Your task to perform on an android device: all mails in gmail Image 0: 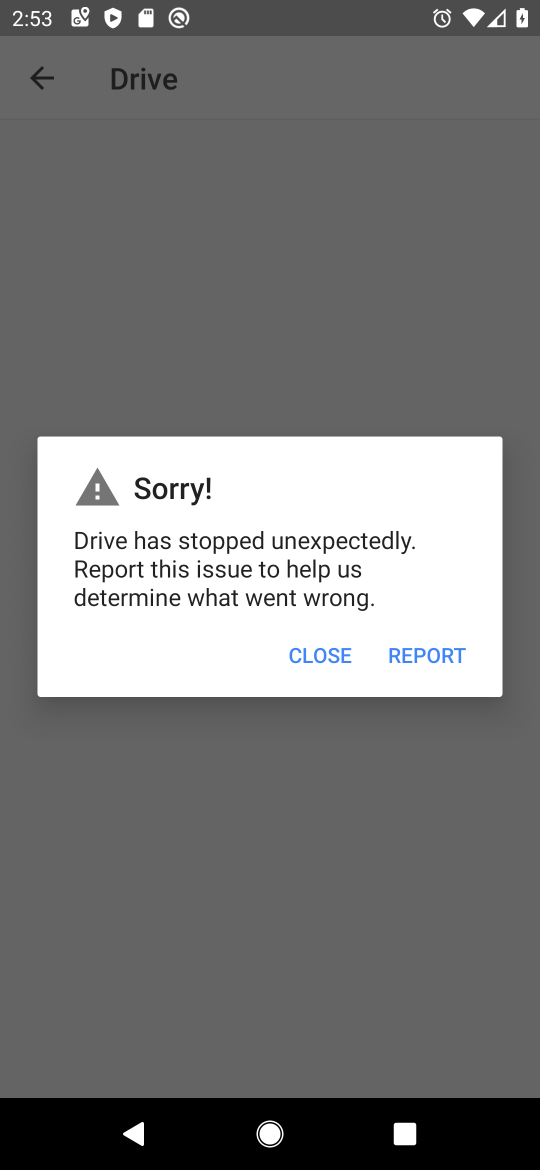
Step 0: press home button
Your task to perform on an android device: all mails in gmail Image 1: 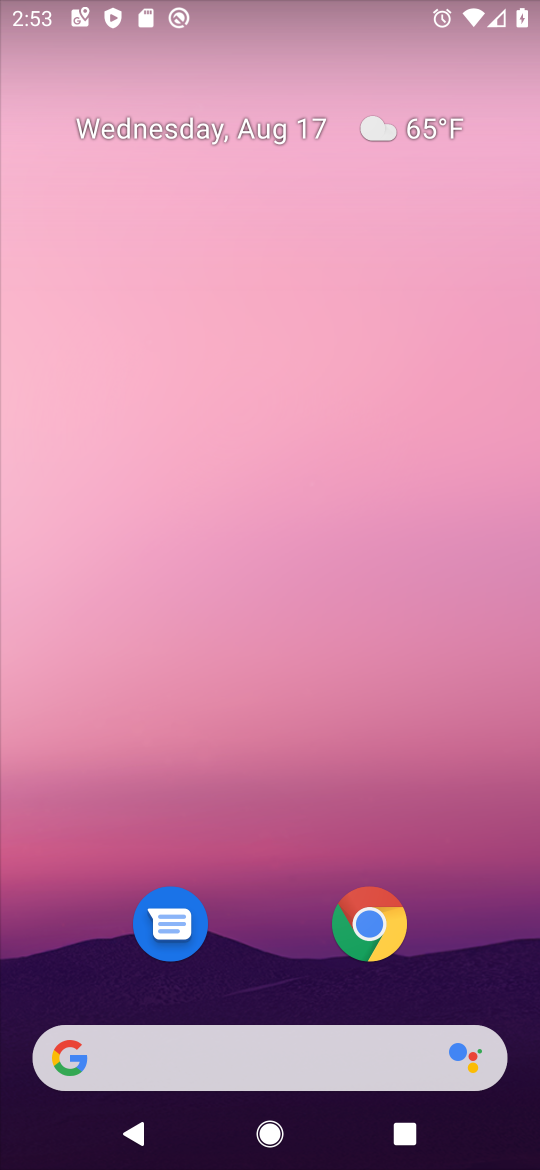
Step 1: drag from (258, 1053) to (174, 280)
Your task to perform on an android device: all mails in gmail Image 2: 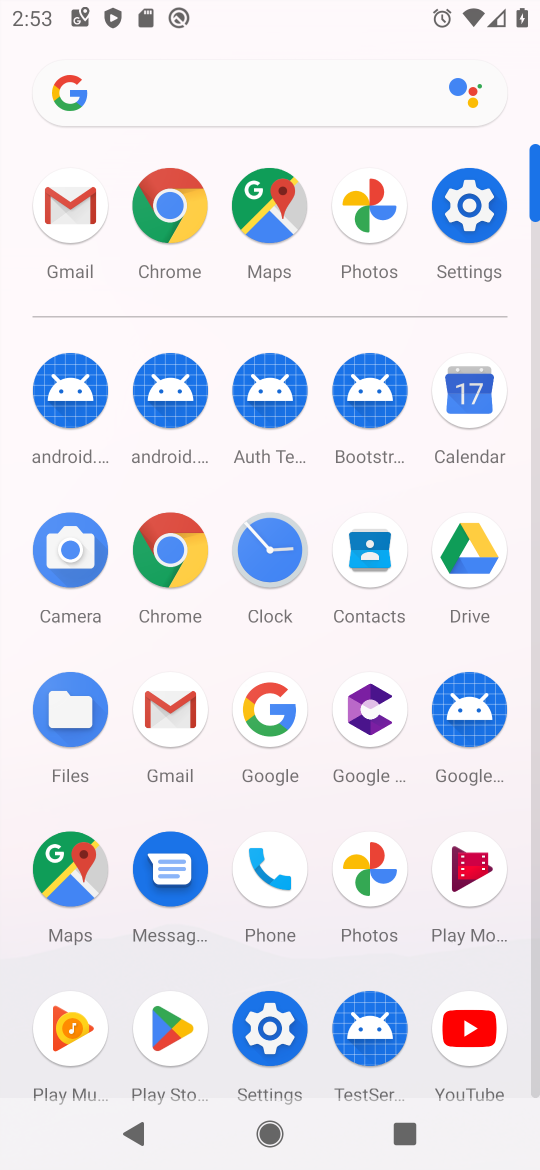
Step 2: click (75, 201)
Your task to perform on an android device: all mails in gmail Image 3: 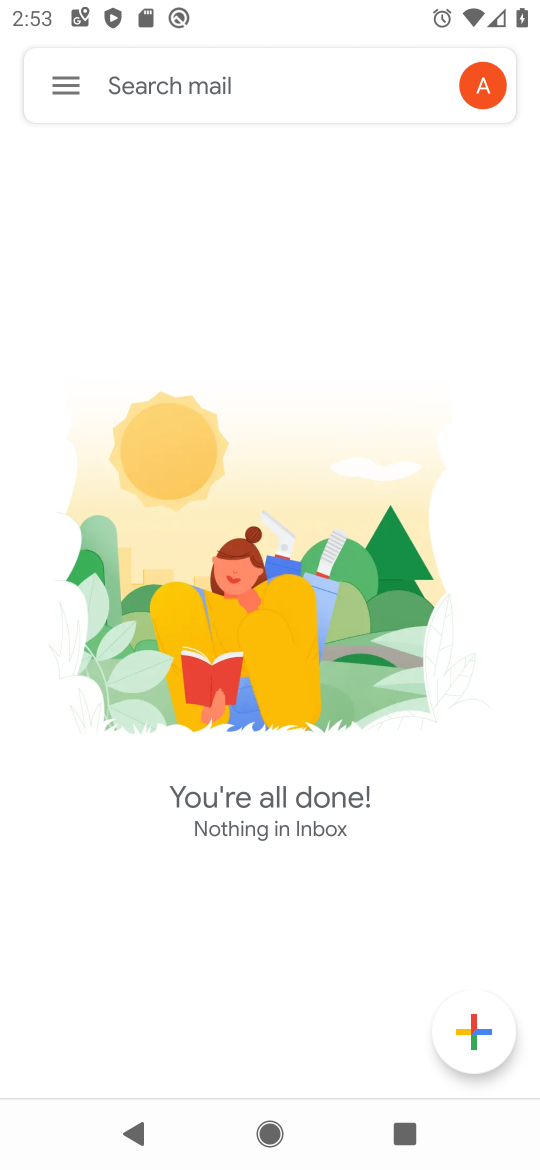
Step 3: click (46, 91)
Your task to perform on an android device: all mails in gmail Image 4: 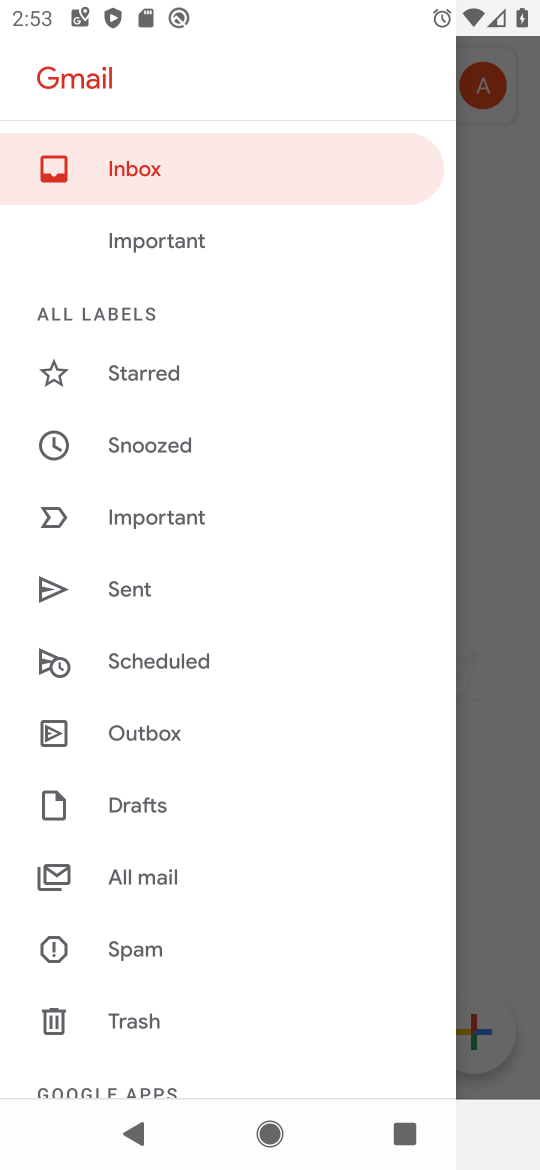
Step 4: click (176, 897)
Your task to perform on an android device: all mails in gmail Image 5: 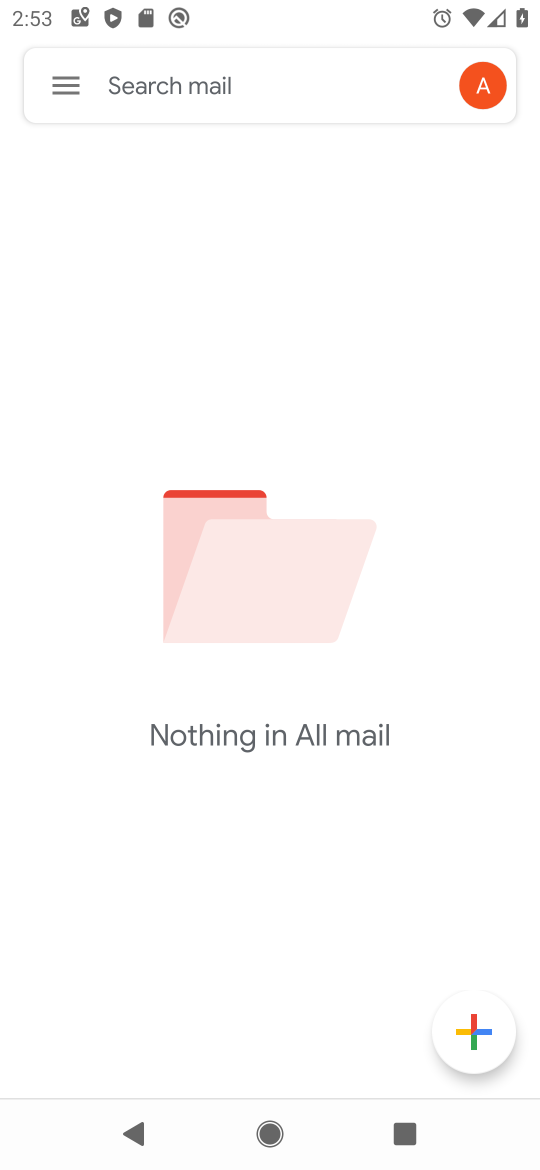
Step 5: task complete